Your task to perform on an android device: search for starred emails in the gmail app Image 0: 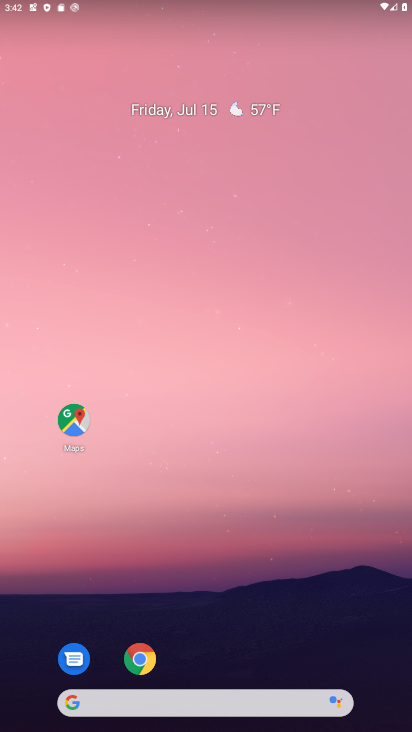
Step 0: drag from (169, 678) to (160, 261)
Your task to perform on an android device: search for starred emails in the gmail app Image 1: 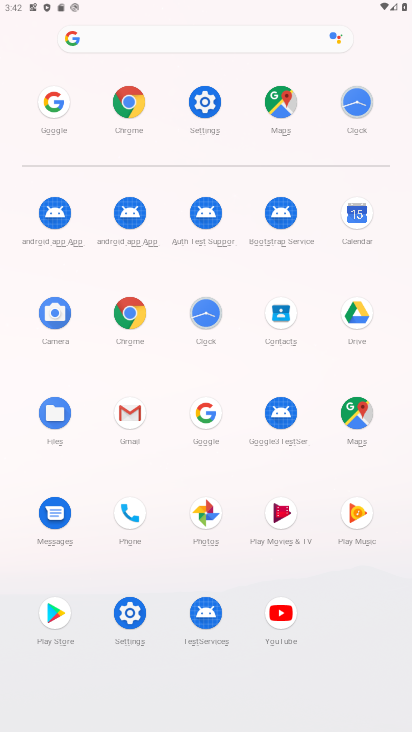
Step 1: click (119, 417)
Your task to perform on an android device: search for starred emails in the gmail app Image 2: 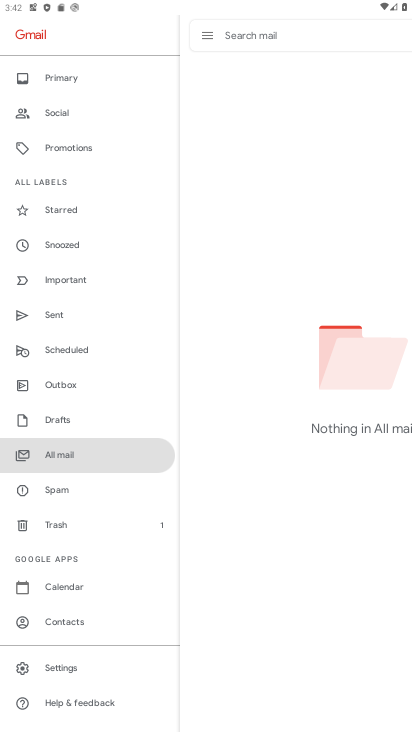
Step 2: click (50, 212)
Your task to perform on an android device: search for starred emails in the gmail app Image 3: 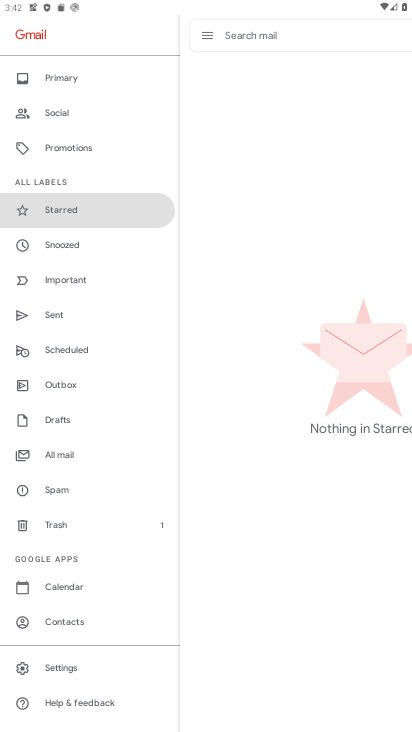
Step 3: task complete